Your task to perform on an android device: Play the last video I watched on Youtube Image 0: 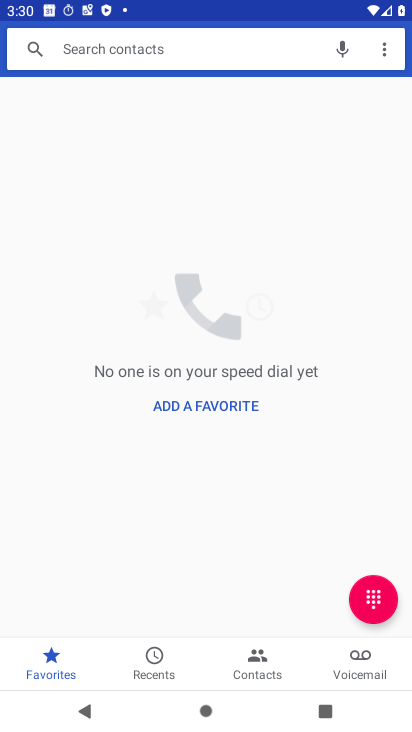
Step 0: press home button
Your task to perform on an android device: Play the last video I watched on Youtube Image 1: 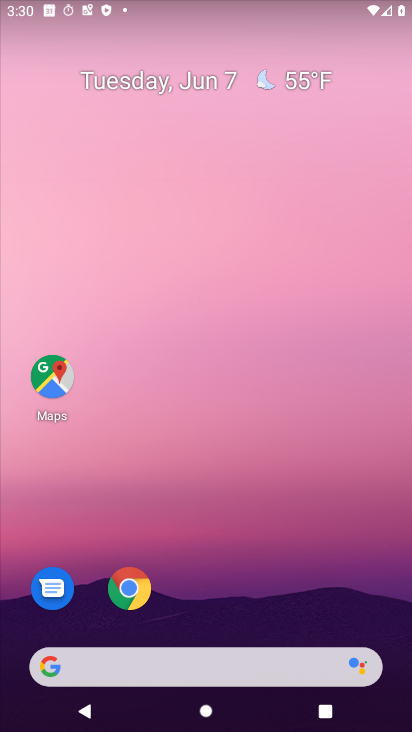
Step 1: drag from (253, 575) to (26, 536)
Your task to perform on an android device: Play the last video I watched on Youtube Image 2: 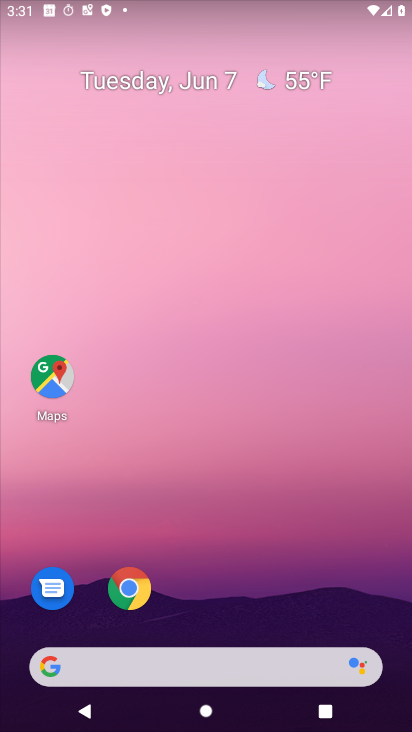
Step 2: drag from (291, 606) to (406, 76)
Your task to perform on an android device: Play the last video I watched on Youtube Image 3: 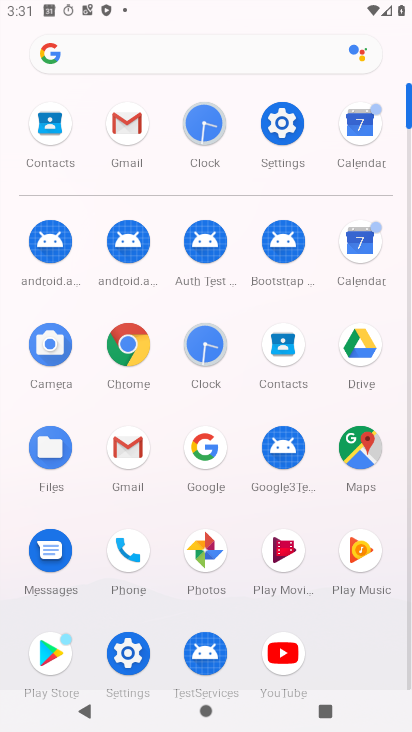
Step 3: click (292, 663)
Your task to perform on an android device: Play the last video I watched on Youtube Image 4: 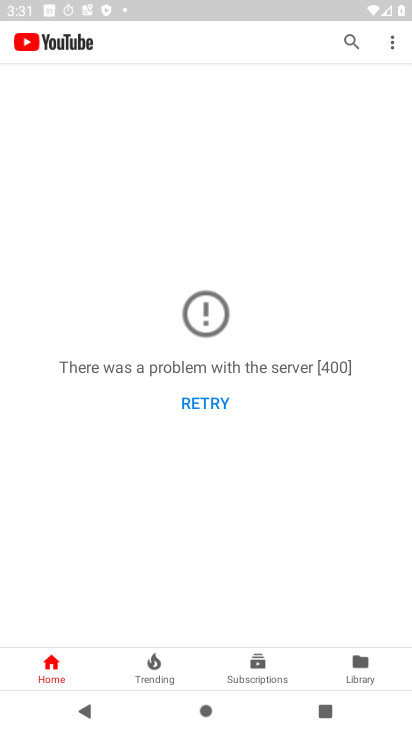
Step 4: click (196, 406)
Your task to perform on an android device: Play the last video I watched on Youtube Image 5: 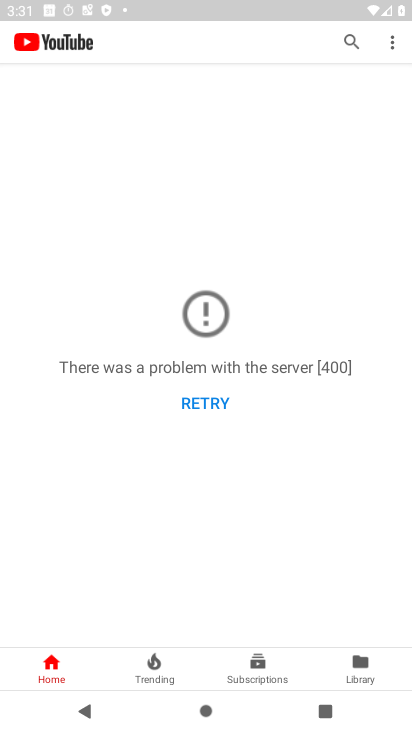
Step 5: click (201, 402)
Your task to perform on an android device: Play the last video I watched on Youtube Image 6: 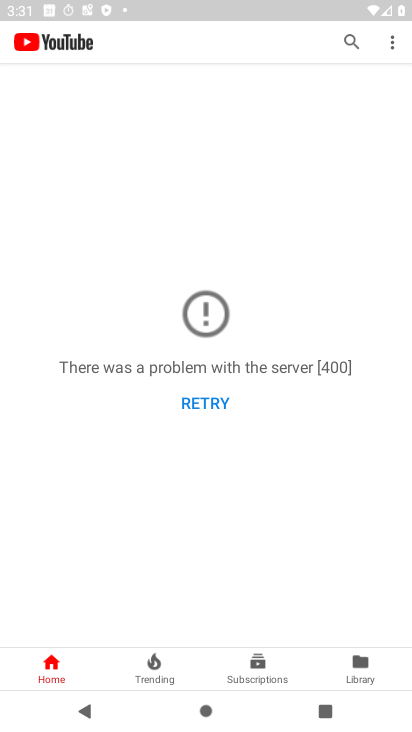
Step 6: task complete